Your task to perform on an android device: Go to internet settings Image 0: 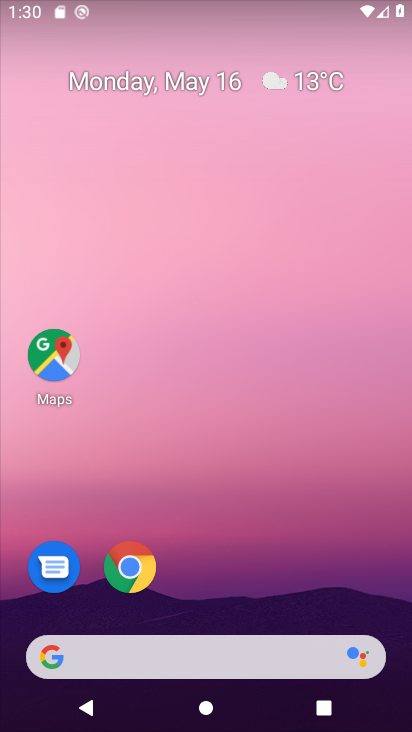
Step 0: drag from (163, 634) to (244, 147)
Your task to perform on an android device: Go to internet settings Image 1: 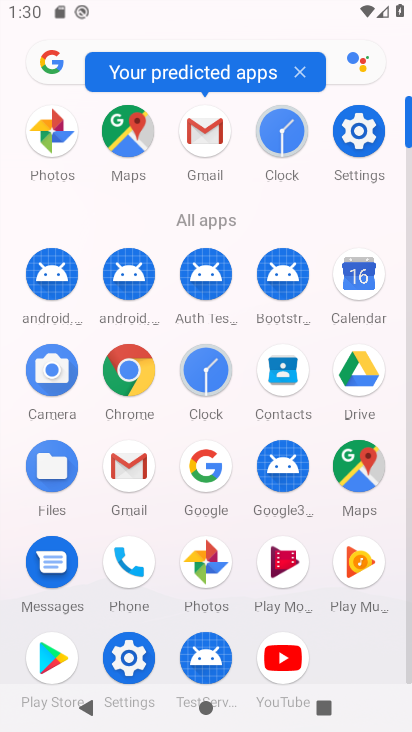
Step 1: drag from (166, 649) to (215, 375)
Your task to perform on an android device: Go to internet settings Image 2: 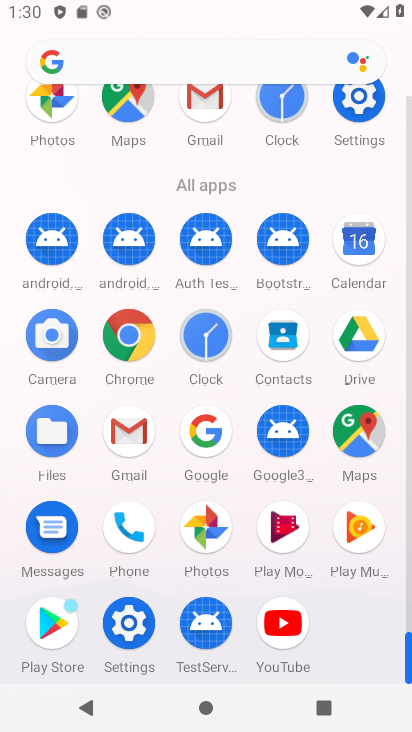
Step 2: click (125, 625)
Your task to perform on an android device: Go to internet settings Image 3: 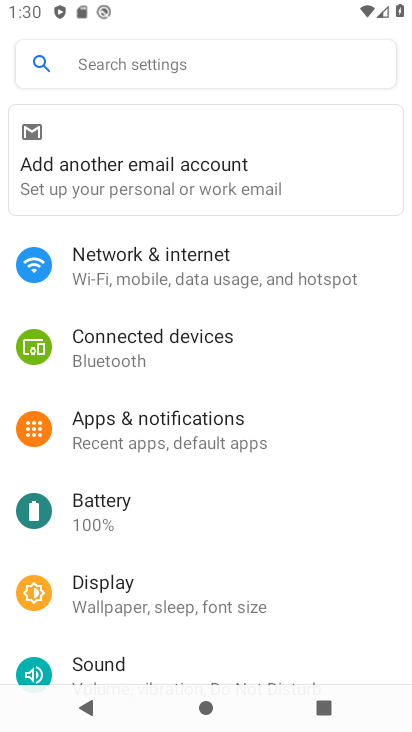
Step 3: click (171, 283)
Your task to perform on an android device: Go to internet settings Image 4: 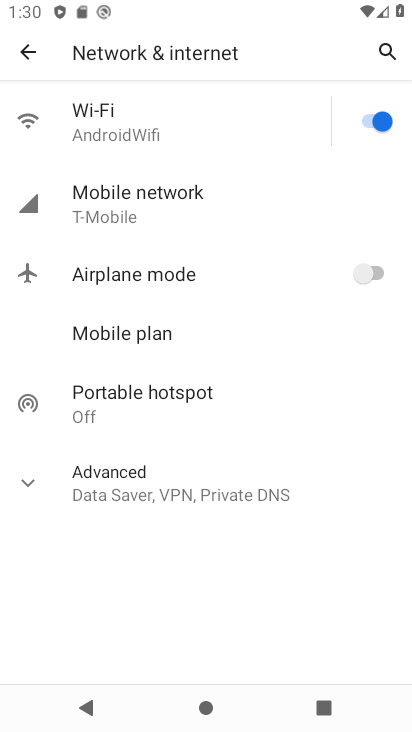
Step 4: click (181, 216)
Your task to perform on an android device: Go to internet settings Image 5: 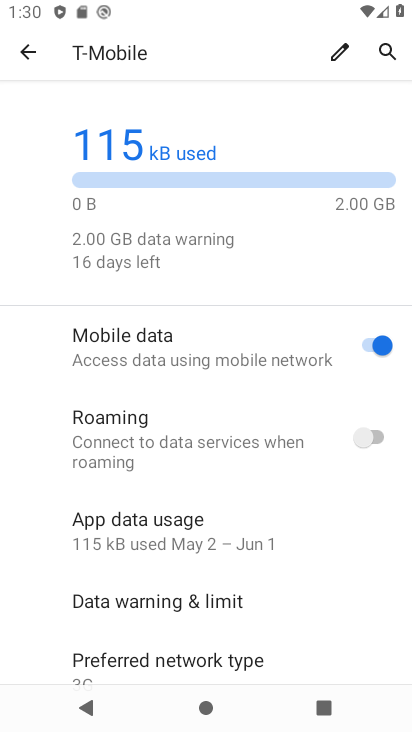
Step 5: task complete